Your task to perform on an android device: open app "Facebook Messenger" (install if not already installed) Image 0: 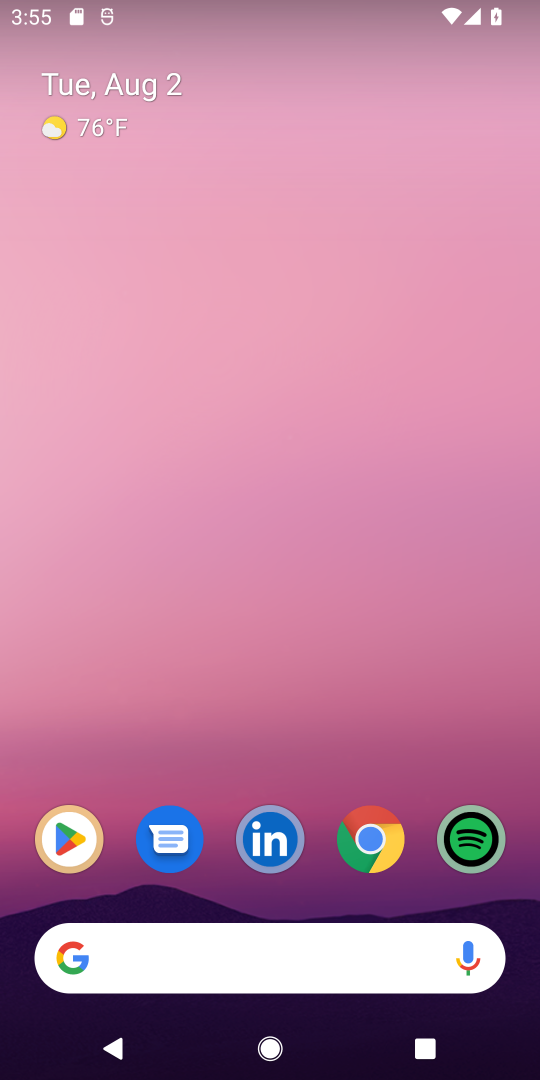
Step 0: drag from (256, 338) to (382, 57)
Your task to perform on an android device: open app "Facebook Messenger" (install if not already installed) Image 1: 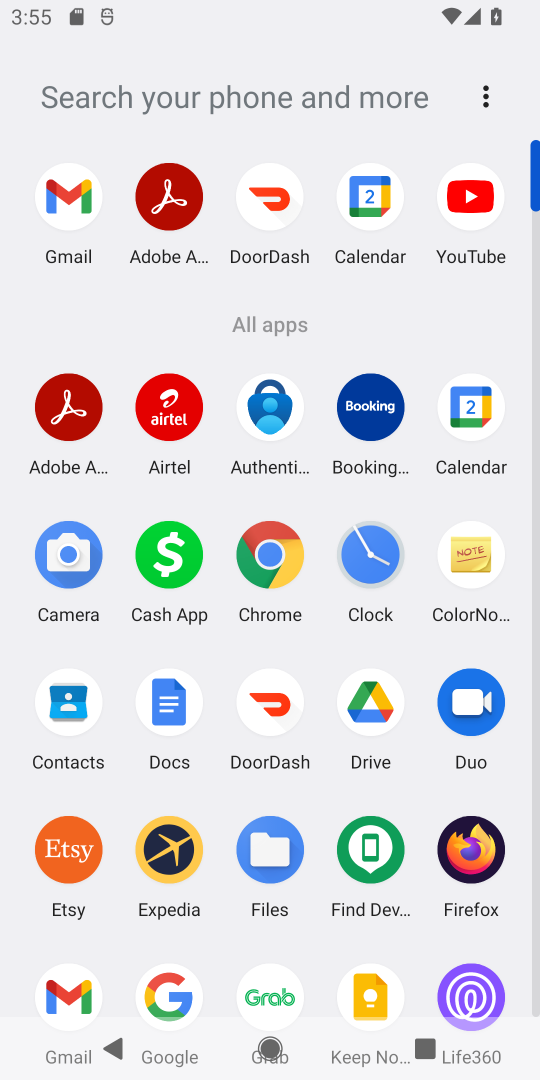
Step 1: task complete